Your task to perform on an android device: Turn off the flashlight Image 0: 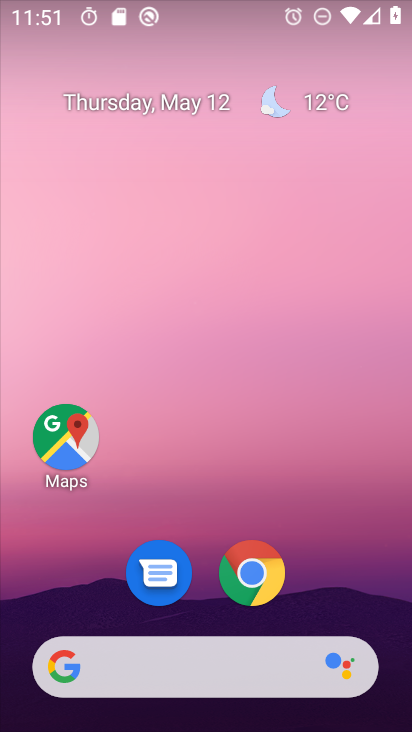
Step 0: drag from (404, 678) to (360, 225)
Your task to perform on an android device: Turn off the flashlight Image 1: 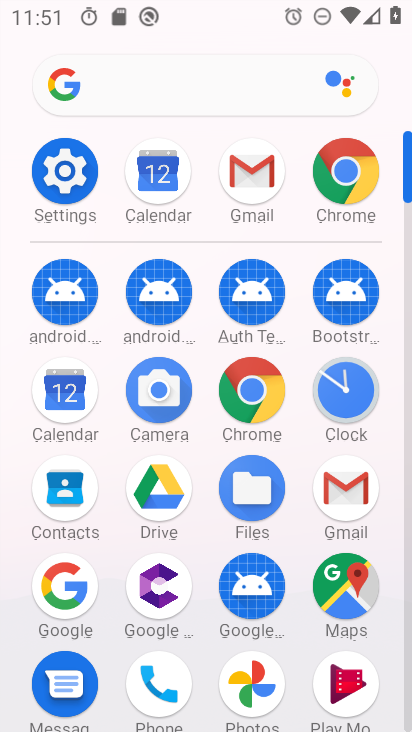
Step 1: click (60, 177)
Your task to perform on an android device: Turn off the flashlight Image 2: 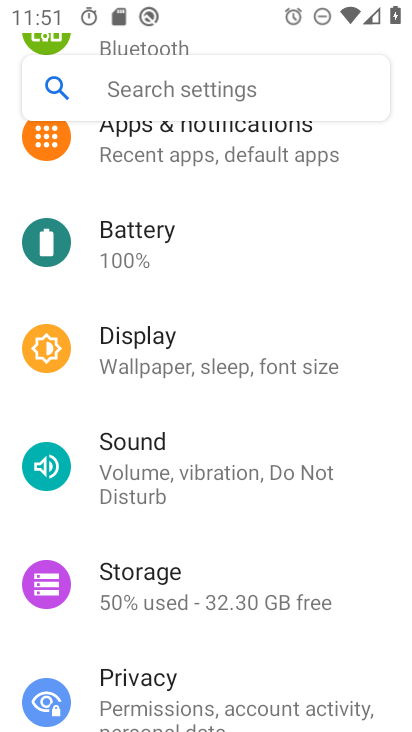
Step 2: click (145, 344)
Your task to perform on an android device: Turn off the flashlight Image 3: 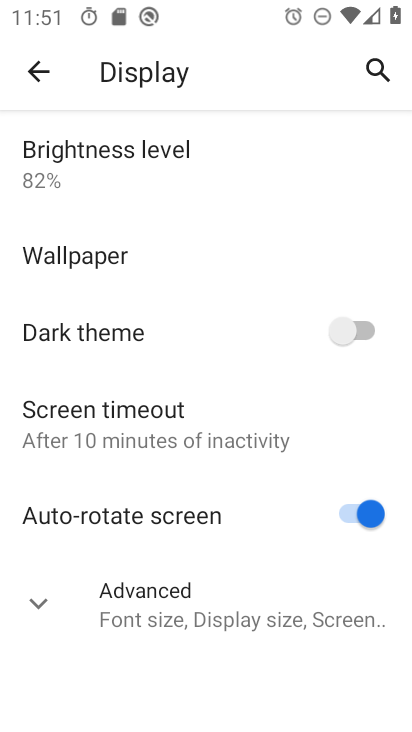
Step 3: task complete